Your task to perform on an android device: turn on the 24-hour format for clock Image 0: 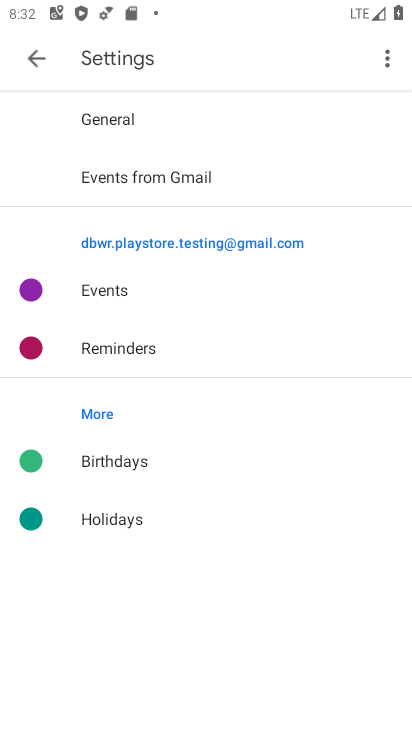
Step 0: press back button
Your task to perform on an android device: turn on the 24-hour format for clock Image 1: 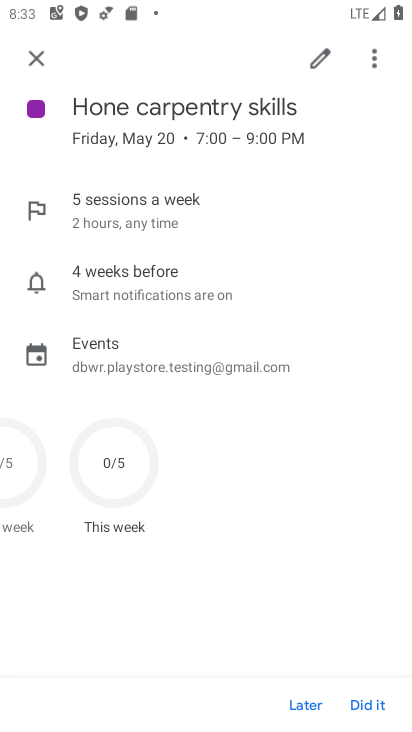
Step 1: click (40, 55)
Your task to perform on an android device: turn on the 24-hour format for clock Image 2: 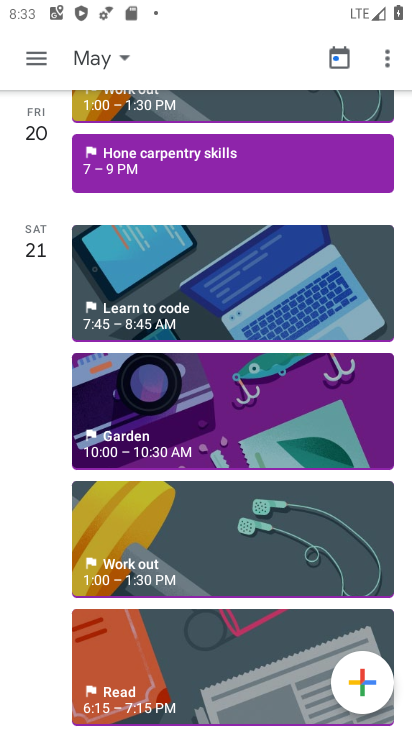
Step 2: press back button
Your task to perform on an android device: turn on the 24-hour format for clock Image 3: 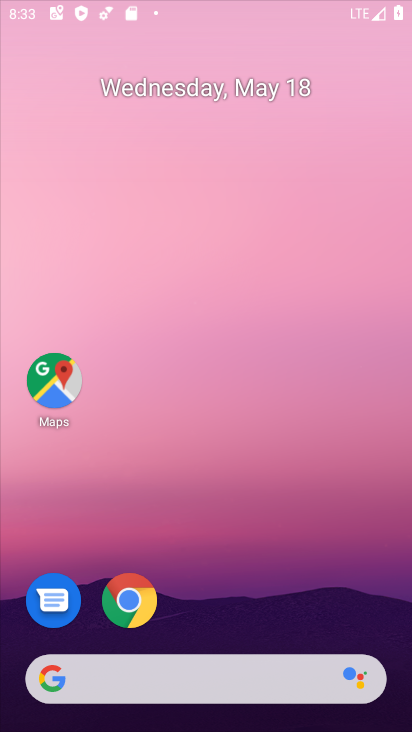
Step 3: press back button
Your task to perform on an android device: turn on the 24-hour format for clock Image 4: 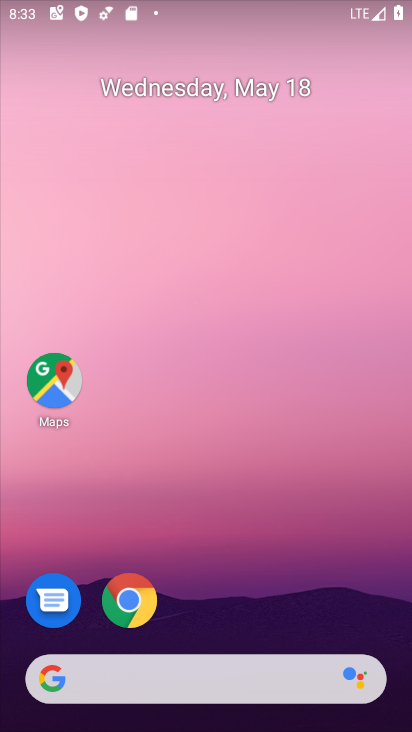
Step 4: drag from (244, 567) to (308, 17)
Your task to perform on an android device: turn on the 24-hour format for clock Image 5: 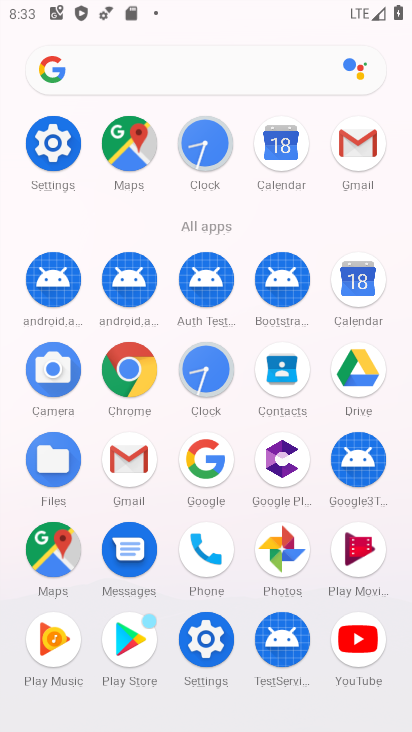
Step 5: click (199, 377)
Your task to perform on an android device: turn on the 24-hour format for clock Image 6: 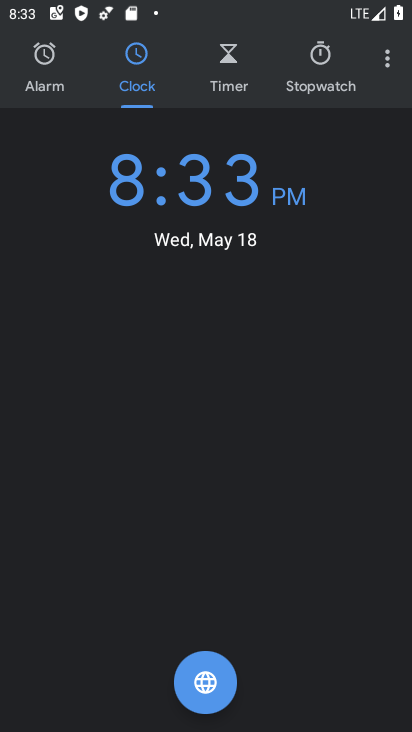
Step 6: click (379, 59)
Your task to perform on an android device: turn on the 24-hour format for clock Image 7: 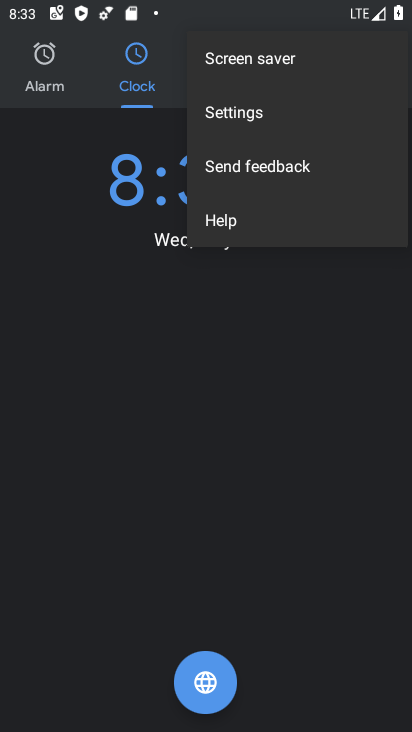
Step 7: click (257, 112)
Your task to perform on an android device: turn on the 24-hour format for clock Image 8: 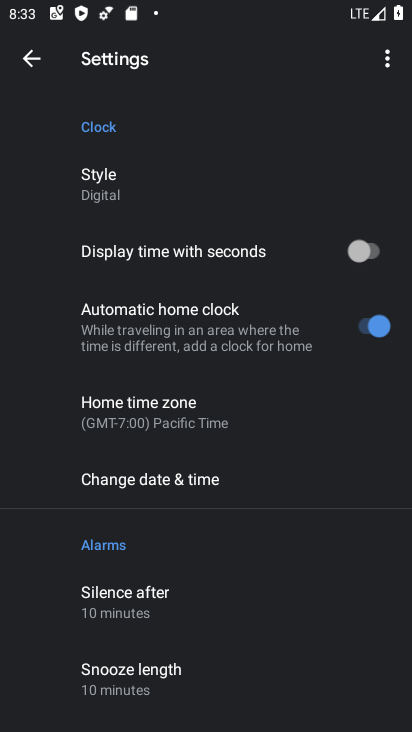
Step 8: click (145, 489)
Your task to perform on an android device: turn on the 24-hour format for clock Image 9: 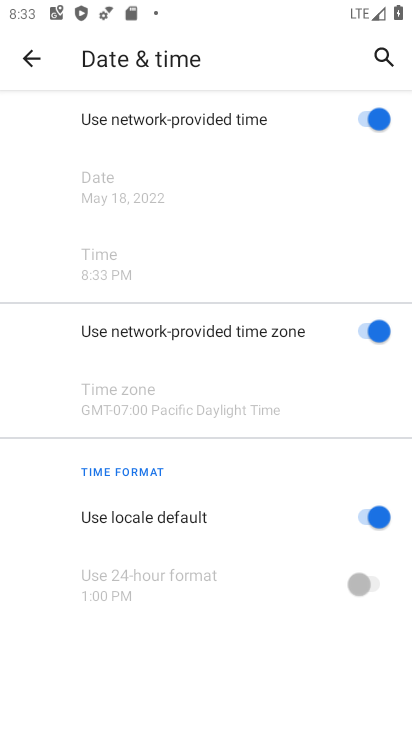
Step 9: click (366, 517)
Your task to perform on an android device: turn on the 24-hour format for clock Image 10: 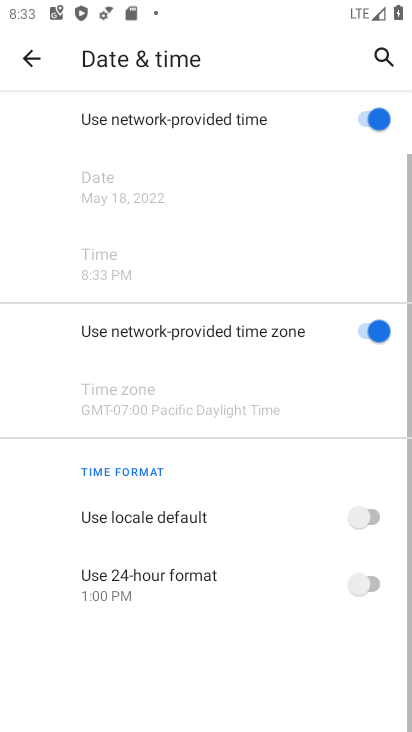
Step 10: click (373, 579)
Your task to perform on an android device: turn on the 24-hour format for clock Image 11: 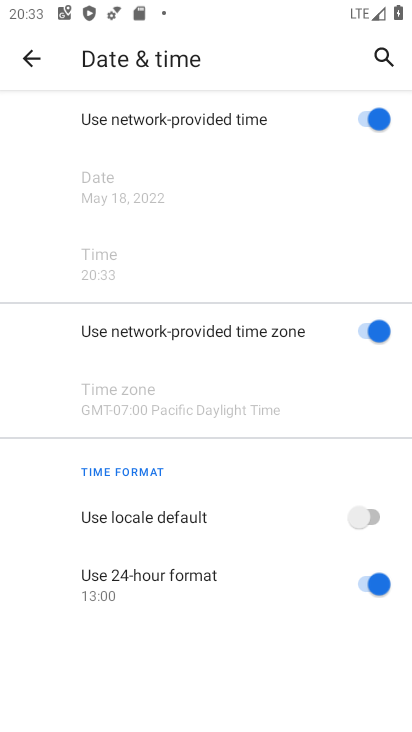
Step 11: task complete